Your task to perform on an android device: allow cookies in the chrome app Image 0: 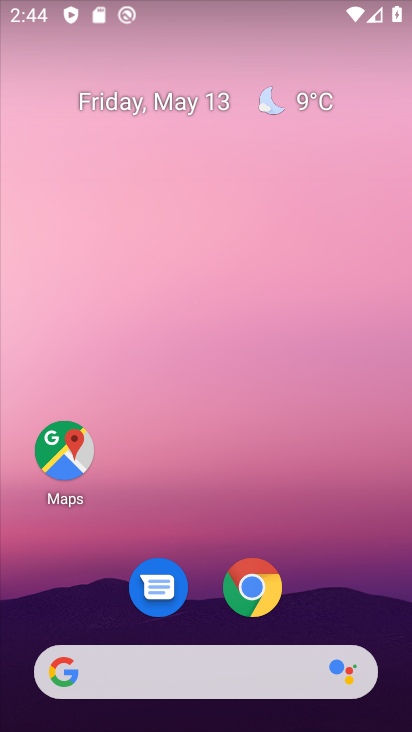
Step 0: click (268, 596)
Your task to perform on an android device: allow cookies in the chrome app Image 1: 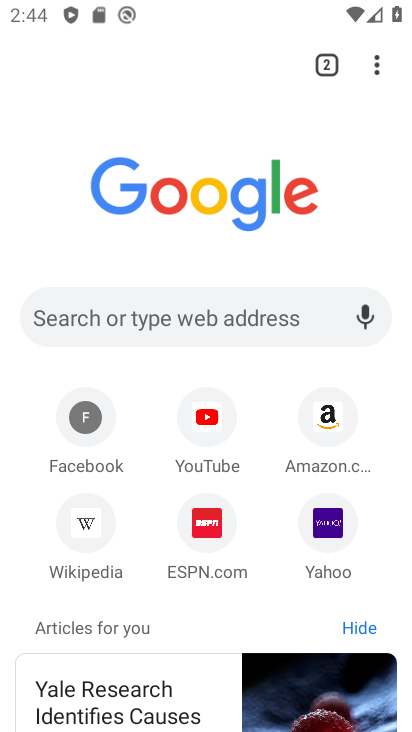
Step 1: drag from (379, 67) to (223, 554)
Your task to perform on an android device: allow cookies in the chrome app Image 2: 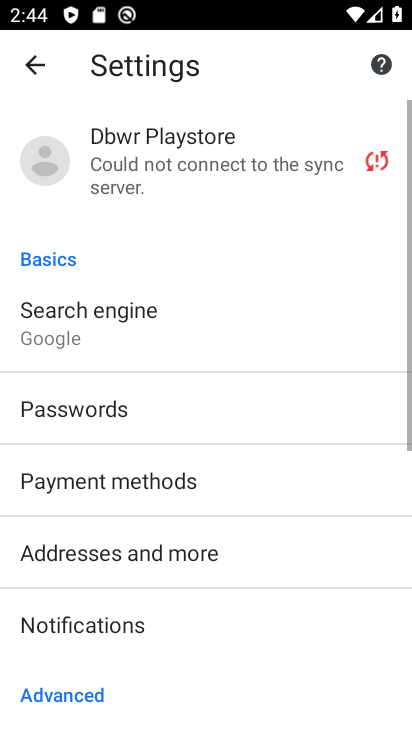
Step 2: drag from (182, 645) to (223, 285)
Your task to perform on an android device: allow cookies in the chrome app Image 3: 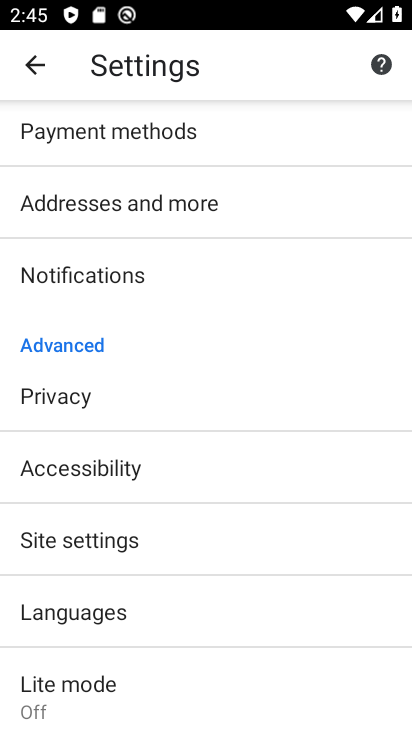
Step 3: click (110, 556)
Your task to perform on an android device: allow cookies in the chrome app Image 4: 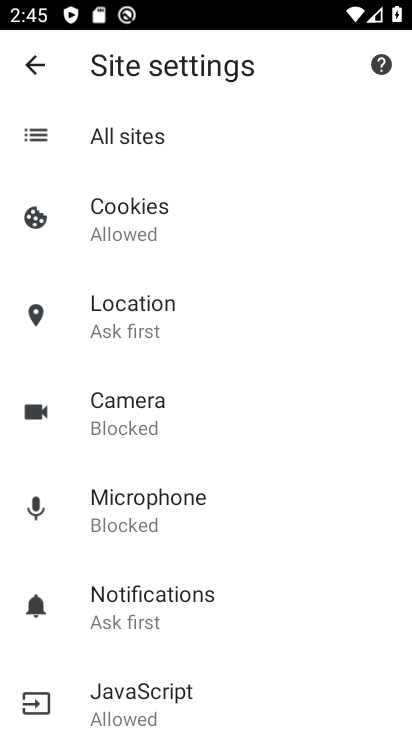
Step 4: click (119, 217)
Your task to perform on an android device: allow cookies in the chrome app Image 5: 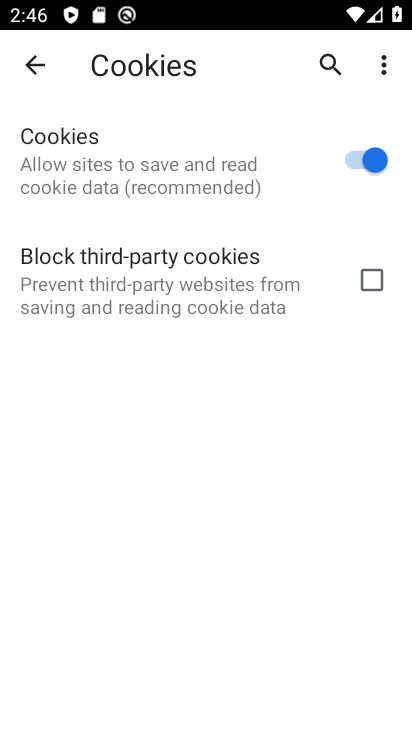
Step 5: task complete